Your task to perform on an android device: read, delete, or share a saved page in the chrome app Image 0: 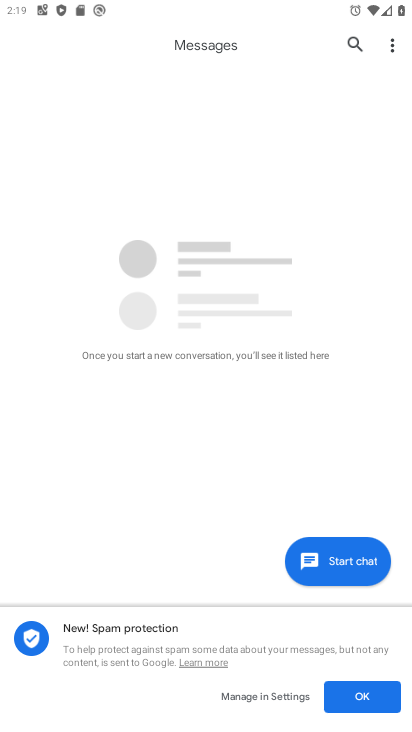
Step 0: press home button
Your task to perform on an android device: read, delete, or share a saved page in the chrome app Image 1: 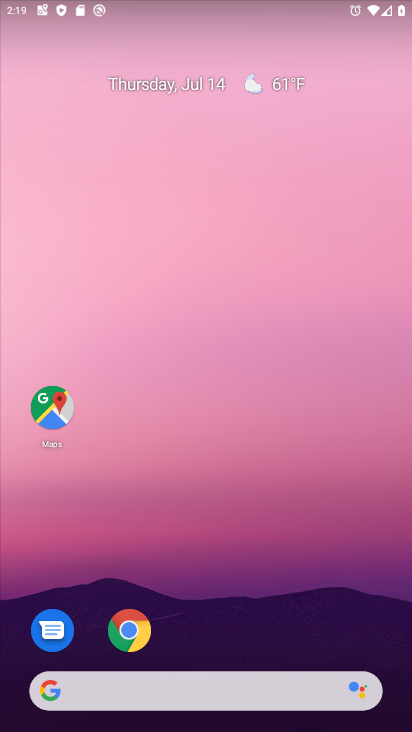
Step 1: click (131, 628)
Your task to perform on an android device: read, delete, or share a saved page in the chrome app Image 2: 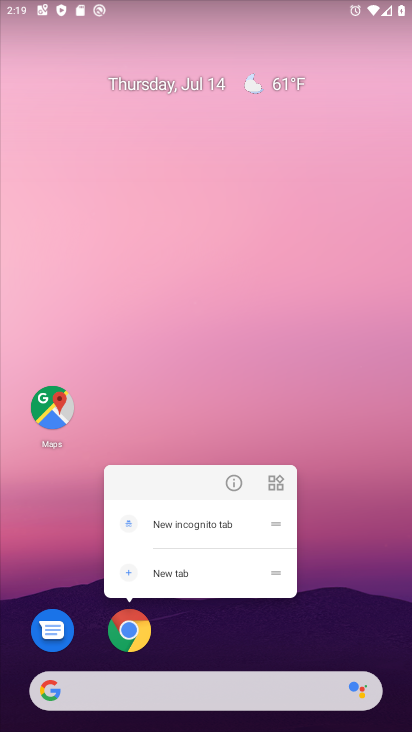
Step 2: click (142, 641)
Your task to perform on an android device: read, delete, or share a saved page in the chrome app Image 3: 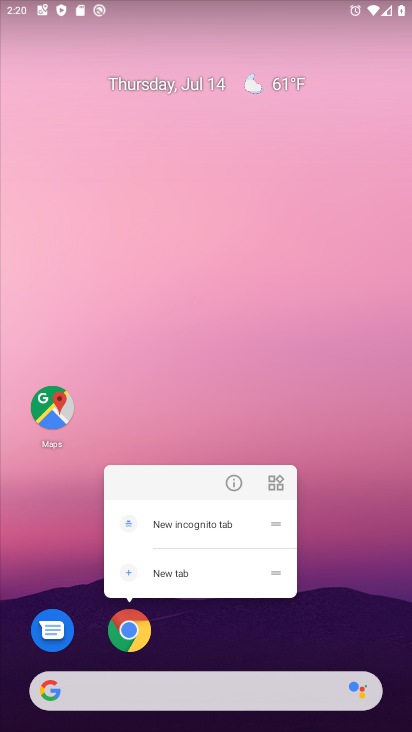
Step 3: click (131, 638)
Your task to perform on an android device: read, delete, or share a saved page in the chrome app Image 4: 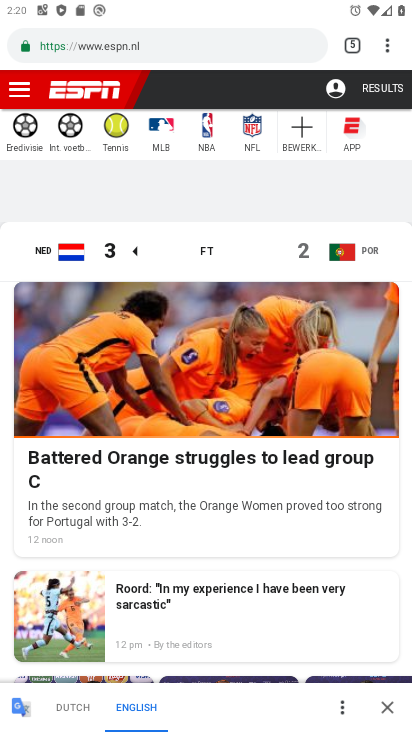
Step 4: drag from (386, 47) to (253, 354)
Your task to perform on an android device: read, delete, or share a saved page in the chrome app Image 5: 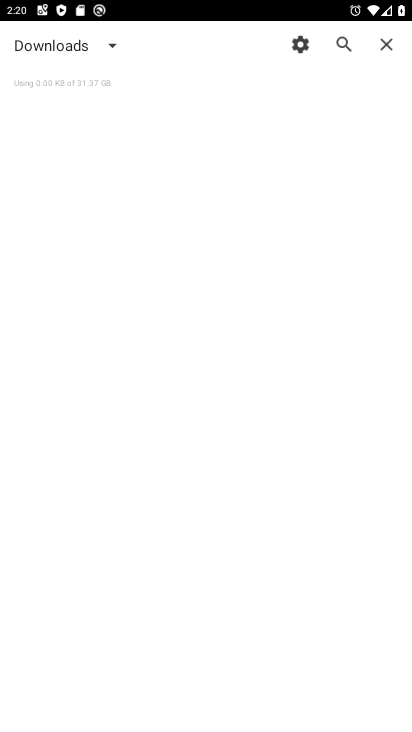
Step 5: click (109, 39)
Your task to perform on an android device: read, delete, or share a saved page in the chrome app Image 6: 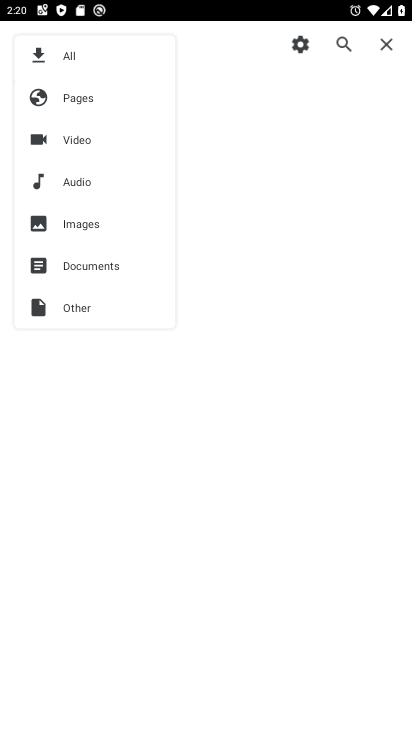
Step 6: click (96, 92)
Your task to perform on an android device: read, delete, or share a saved page in the chrome app Image 7: 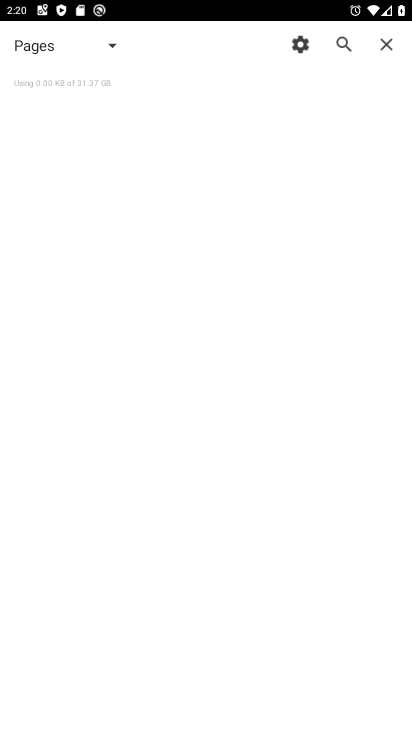
Step 7: task complete